Your task to perform on an android device: change text size in settings app Image 0: 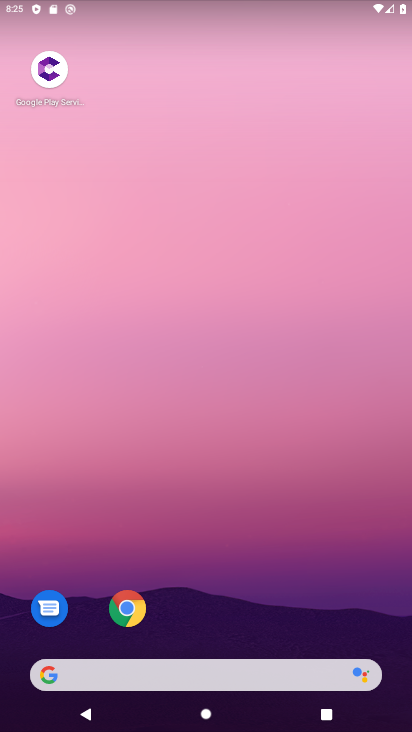
Step 0: drag from (179, 666) to (280, 102)
Your task to perform on an android device: change text size in settings app Image 1: 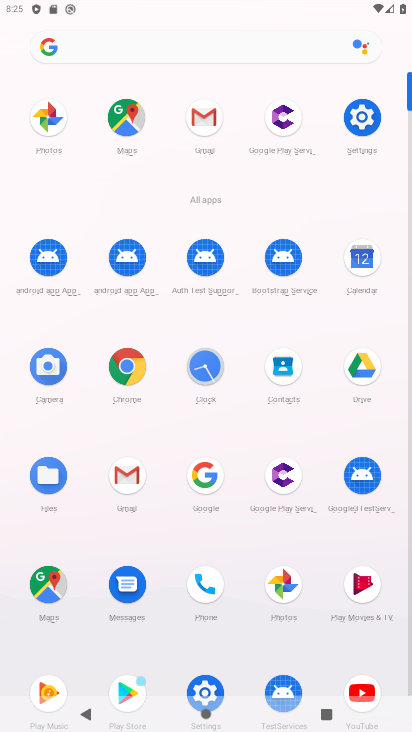
Step 1: click (211, 700)
Your task to perform on an android device: change text size in settings app Image 2: 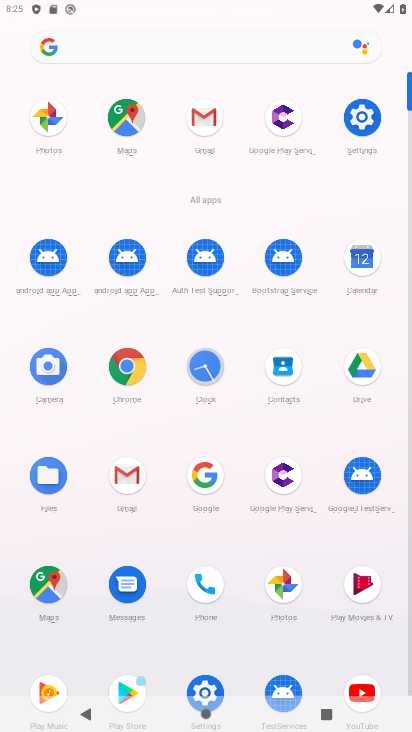
Step 2: click (202, 689)
Your task to perform on an android device: change text size in settings app Image 3: 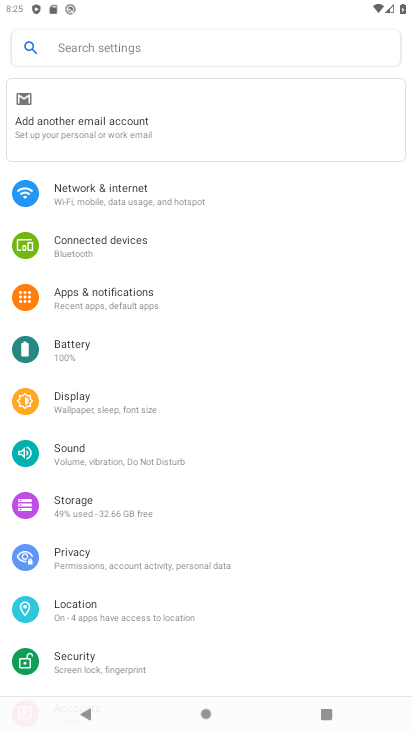
Step 3: click (90, 398)
Your task to perform on an android device: change text size in settings app Image 4: 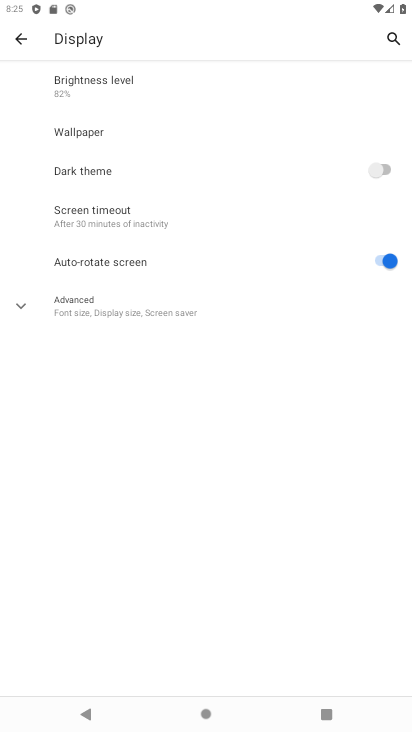
Step 4: click (106, 304)
Your task to perform on an android device: change text size in settings app Image 5: 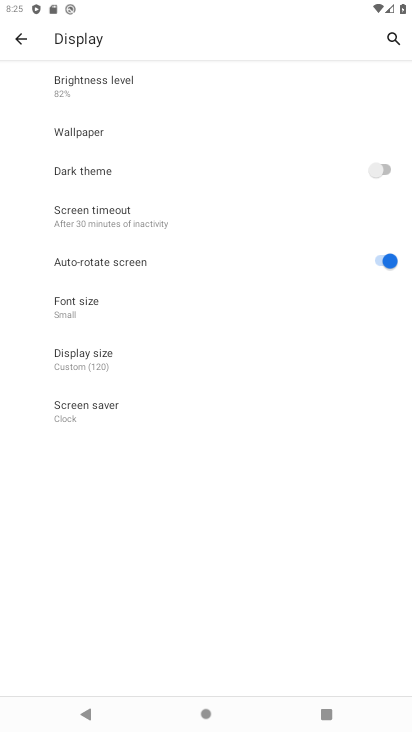
Step 5: click (100, 319)
Your task to perform on an android device: change text size in settings app Image 6: 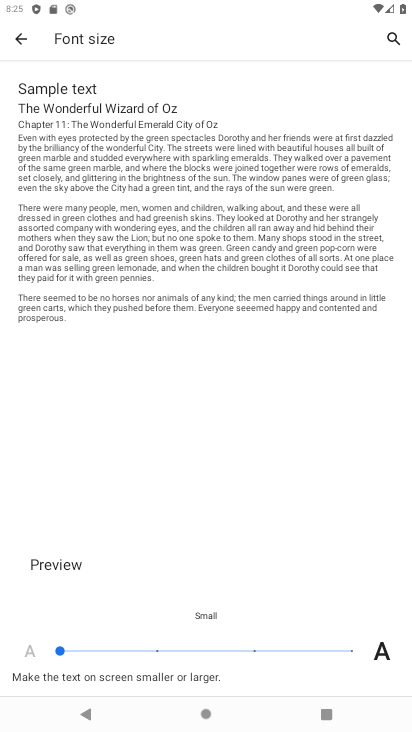
Step 6: click (151, 649)
Your task to perform on an android device: change text size in settings app Image 7: 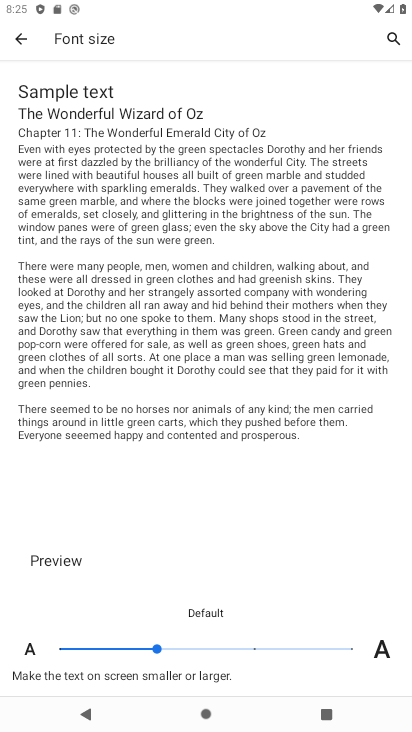
Step 7: click (260, 645)
Your task to perform on an android device: change text size in settings app Image 8: 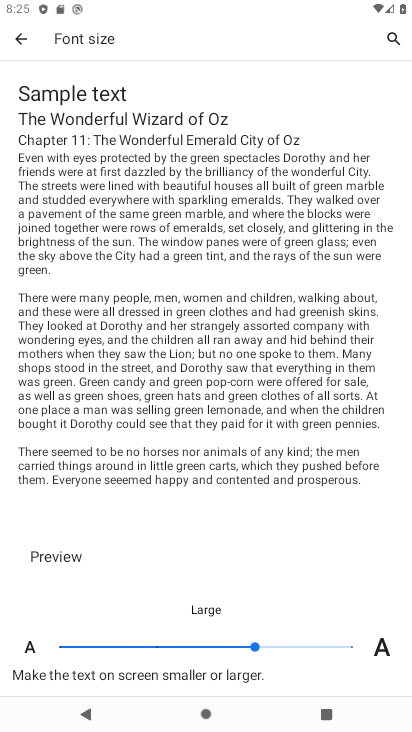
Step 8: task complete